Your task to perform on an android device: What's the weather today? Image 0: 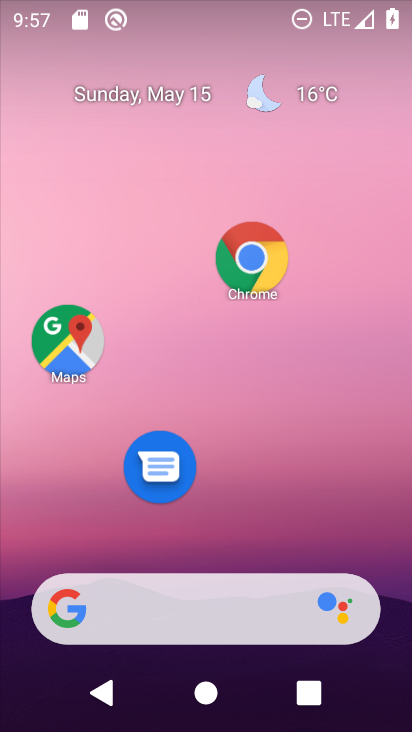
Step 0: click (316, 93)
Your task to perform on an android device: What's the weather today? Image 1: 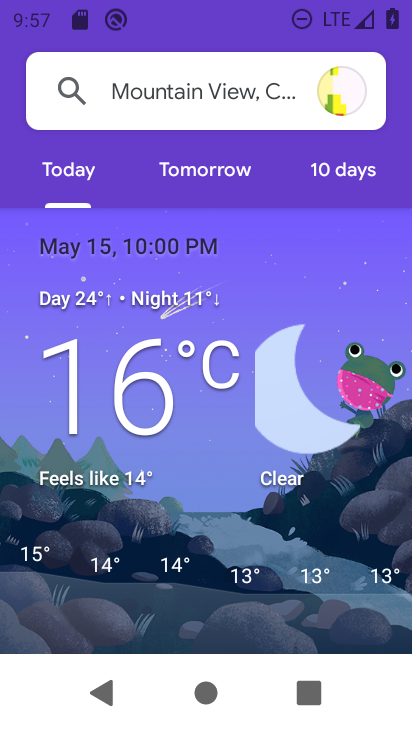
Step 1: task complete